Your task to perform on an android device: open wifi settings Image 0: 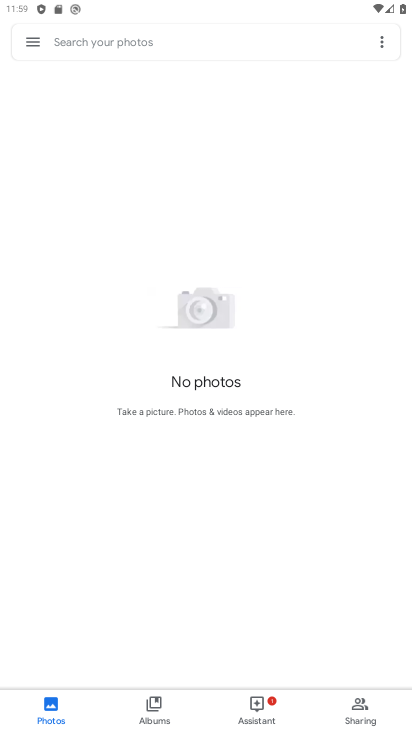
Step 0: press home button
Your task to perform on an android device: open wifi settings Image 1: 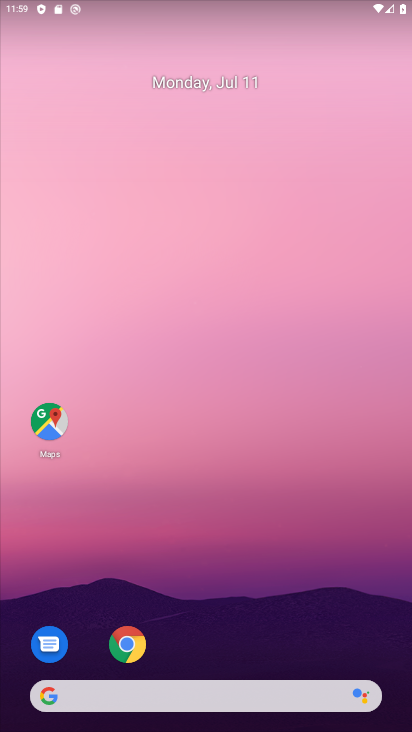
Step 1: drag from (10, 726) to (314, 21)
Your task to perform on an android device: open wifi settings Image 2: 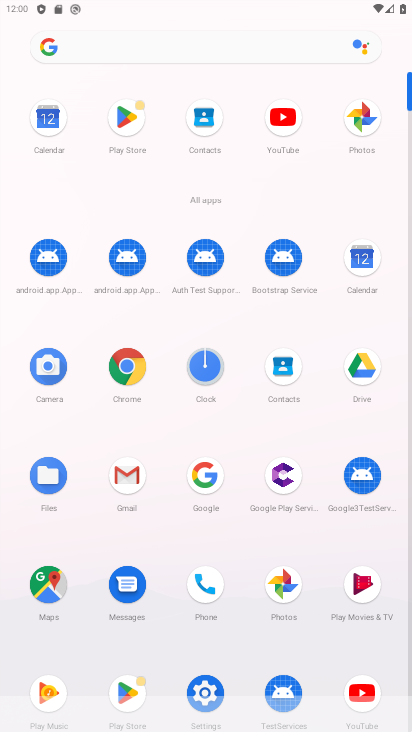
Step 2: click (192, 694)
Your task to perform on an android device: open wifi settings Image 3: 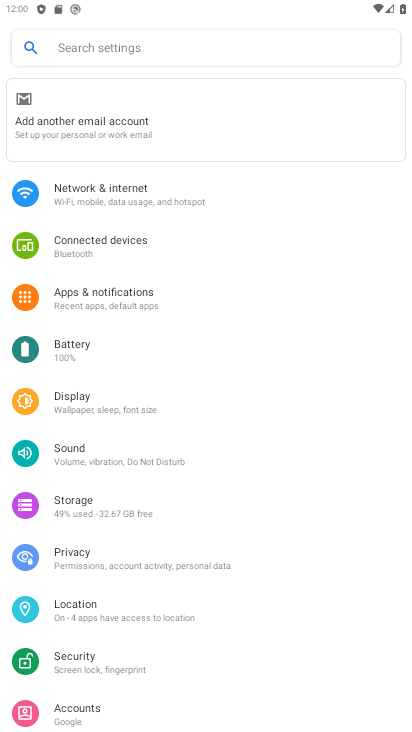
Step 3: click (108, 198)
Your task to perform on an android device: open wifi settings Image 4: 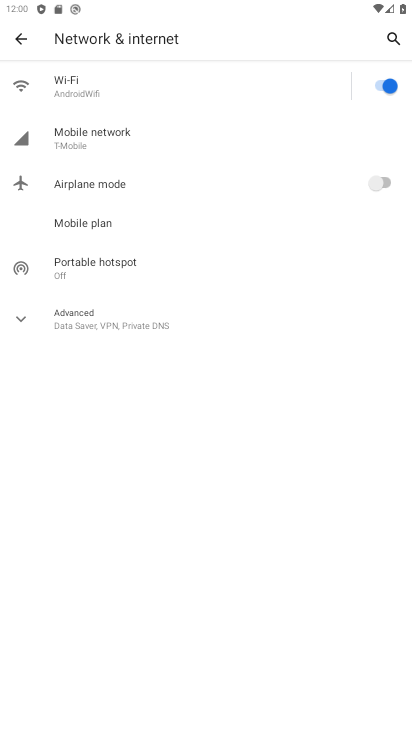
Step 4: task complete